Your task to perform on an android device: Open Chrome and go to settings Image 0: 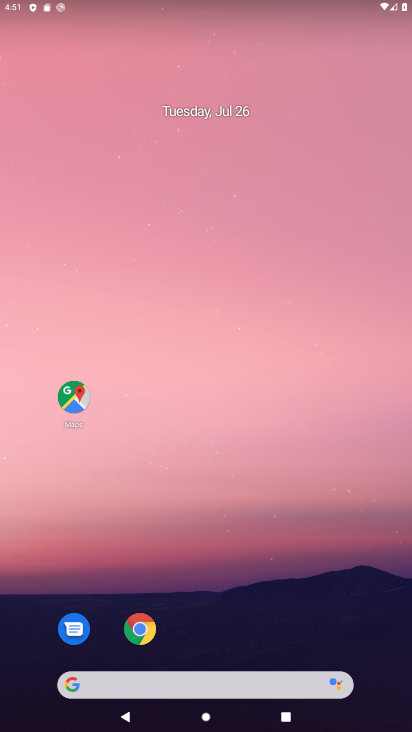
Step 0: press back button
Your task to perform on an android device: Open Chrome and go to settings Image 1: 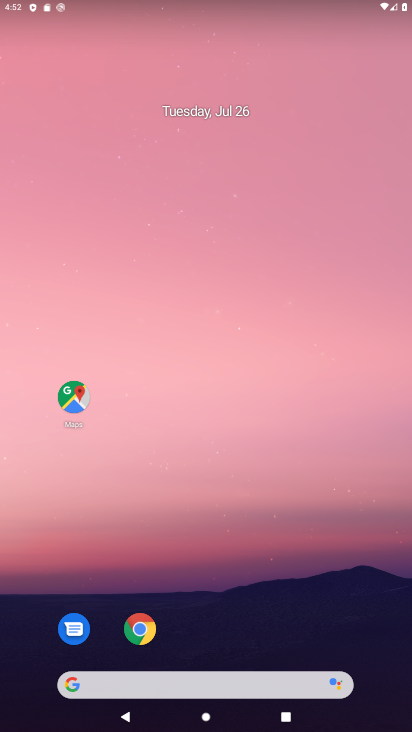
Step 1: click (136, 637)
Your task to perform on an android device: Open Chrome and go to settings Image 2: 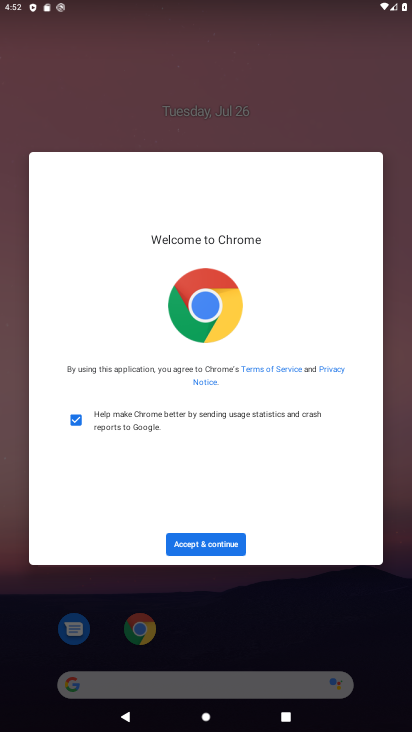
Step 2: click (196, 541)
Your task to perform on an android device: Open Chrome and go to settings Image 3: 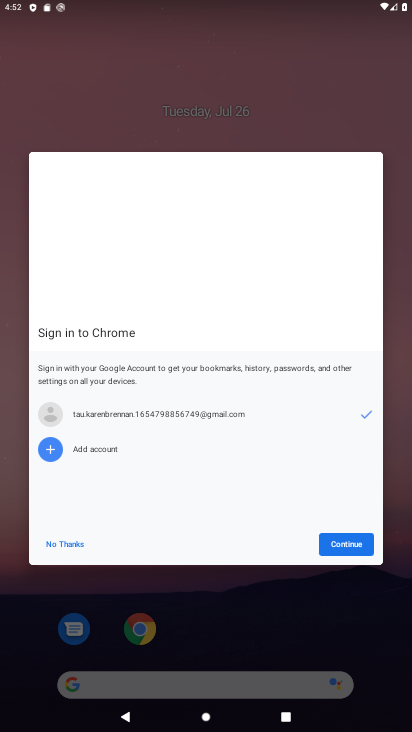
Step 3: click (369, 541)
Your task to perform on an android device: Open Chrome and go to settings Image 4: 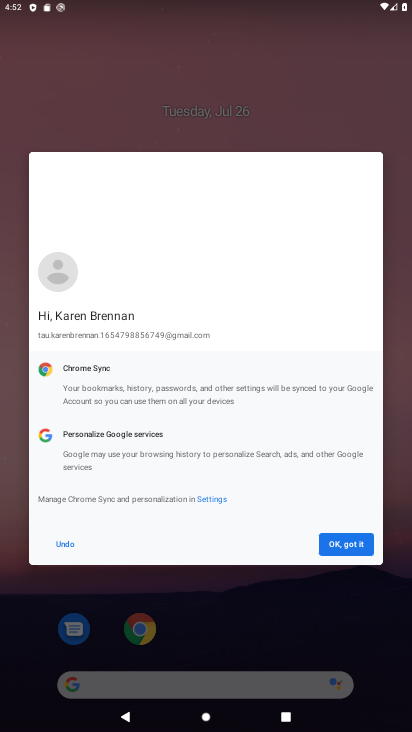
Step 4: click (369, 541)
Your task to perform on an android device: Open Chrome and go to settings Image 5: 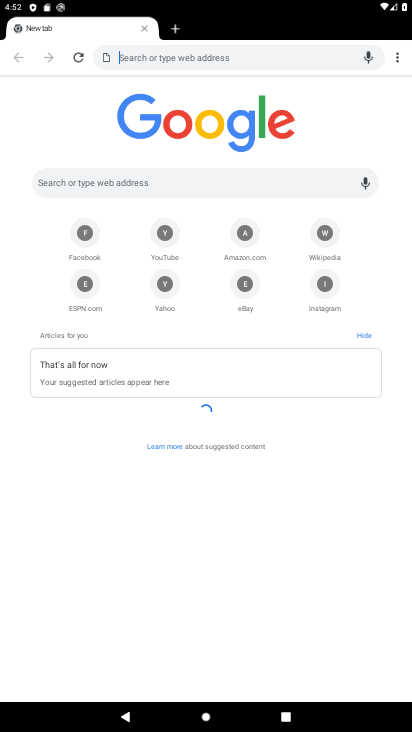
Step 5: click (400, 56)
Your task to perform on an android device: Open Chrome and go to settings Image 6: 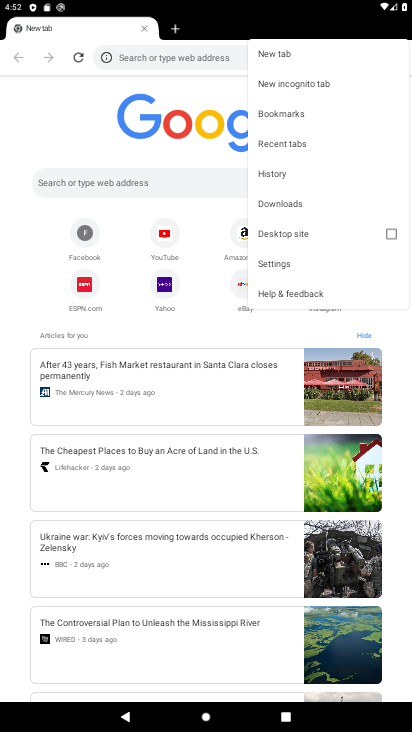
Step 6: click (269, 265)
Your task to perform on an android device: Open Chrome and go to settings Image 7: 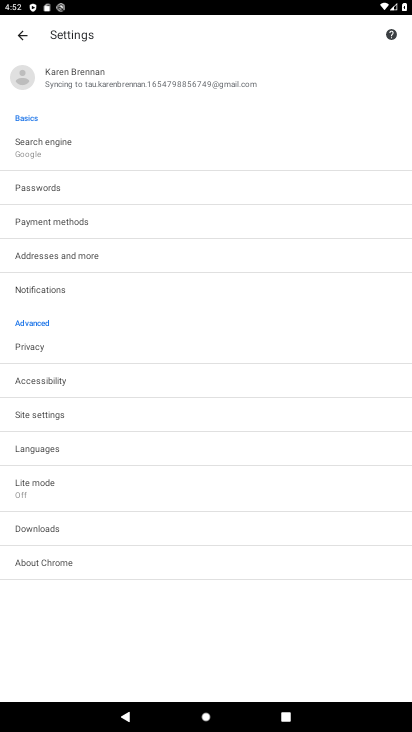
Step 7: task complete